Your task to perform on an android device: delete browsing data in the chrome app Image 0: 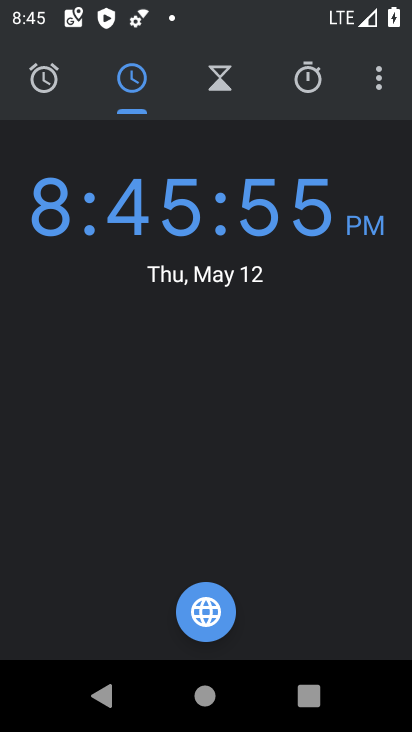
Step 0: press home button
Your task to perform on an android device: delete browsing data in the chrome app Image 1: 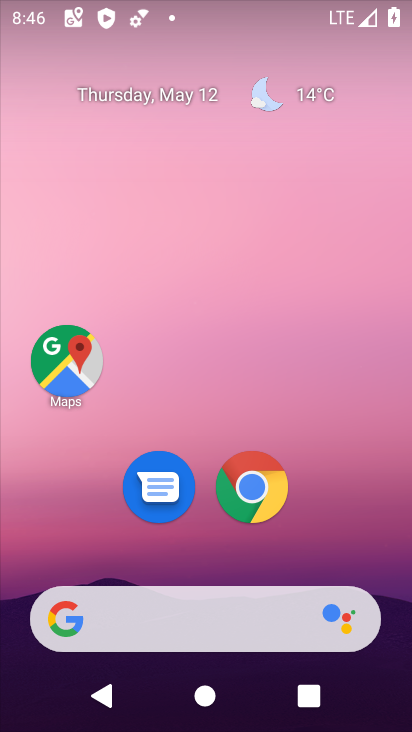
Step 1: click (268, 488)
Your task to perform on an android device: delete browsing data in the chrome app Image 2: 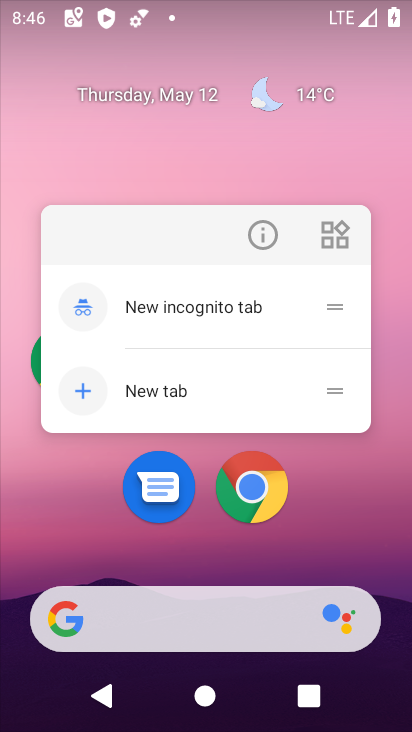
Step 2: click (250, 489)
Your task to perform on an android device: delete browsing data in the chrome app Image 3: 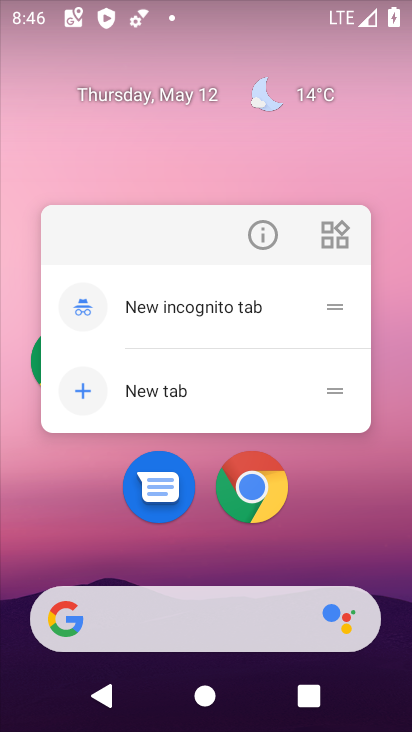
Step 3: click (242, 502)
Your task to perform on an android device: delete browsing data in the chrome app Image 4: 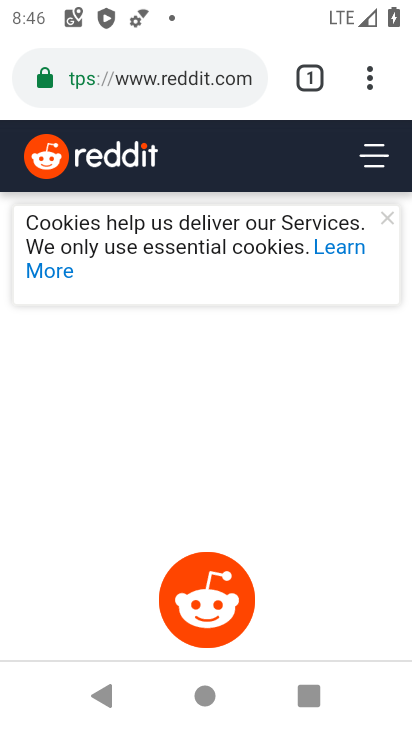
Step 4: click (369, 81)
Your task to perform on an android device: delete browsing data in the chrome app Image 5: 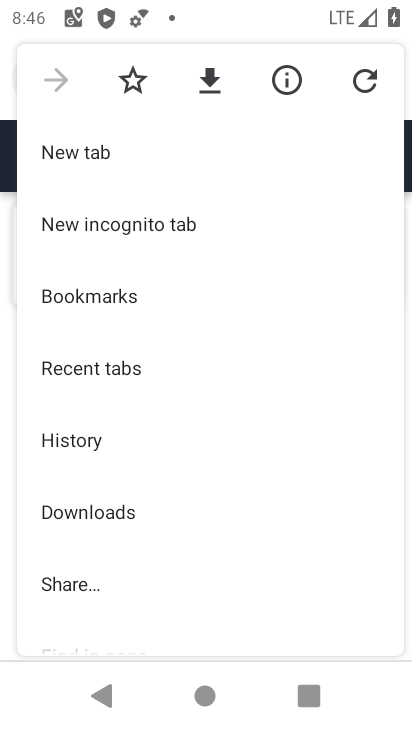
Step 5: click (130, 434)
Your task to perform on an android device: delete browsing data in the chrome app Image 6: 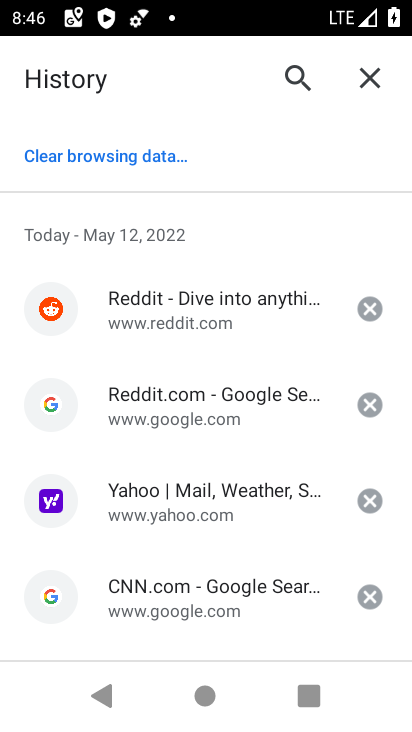
Step 6: click (165, 160)
Your task to perform on an android device: delete browsing data in the chrome app Image 7: 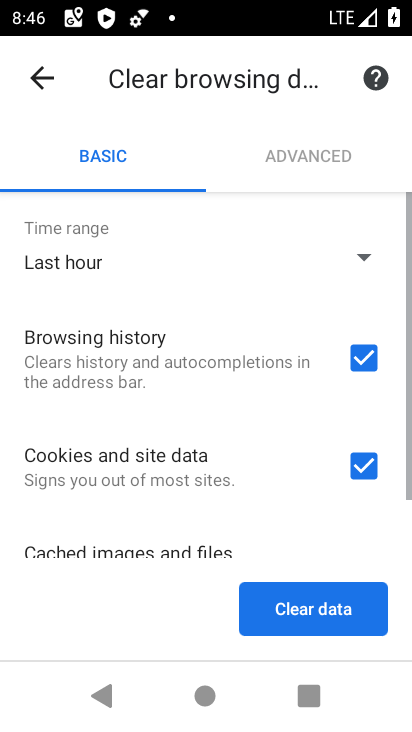
Step 7: click (282, 613)
Your task to perform on an android device: delete browsing data in the chrome app Image 8: 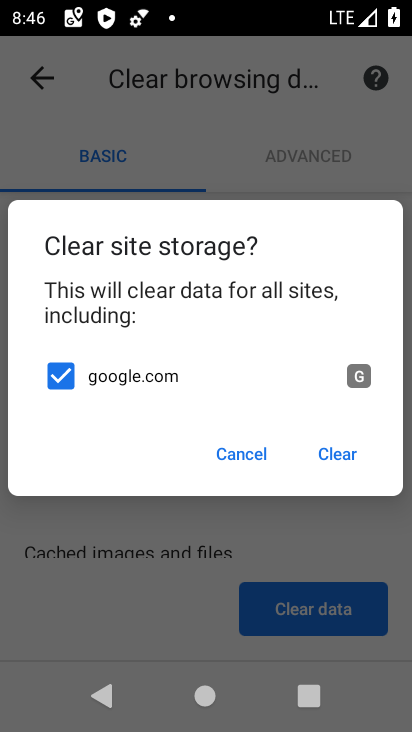
Step 8: click (358, 458)
Your task to perform on an android device: delete browsing data in the chrome app Image 9: 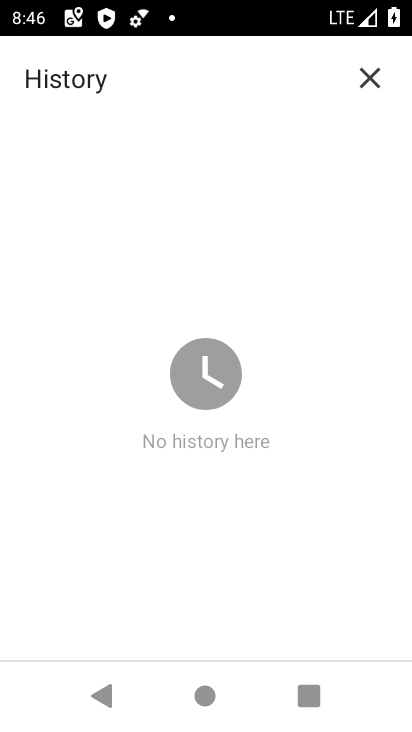
Step 9: task complete